Your task to perform on an android device: Go to calendar. Show me events next week Image 0: 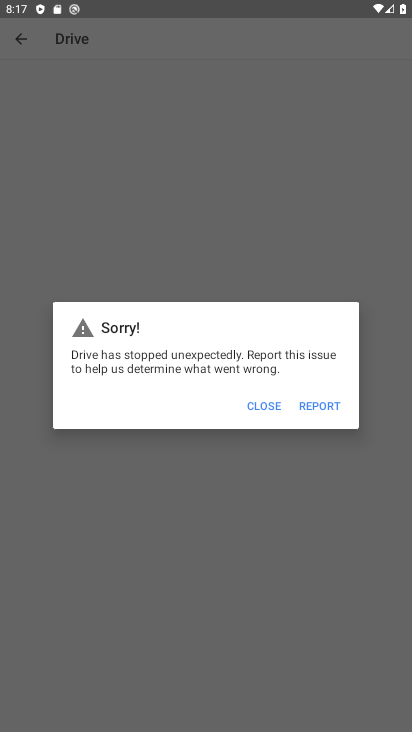
Step 0: task complete